Your task to perform on an android device: toggle data saver in the chrome app Image 0: 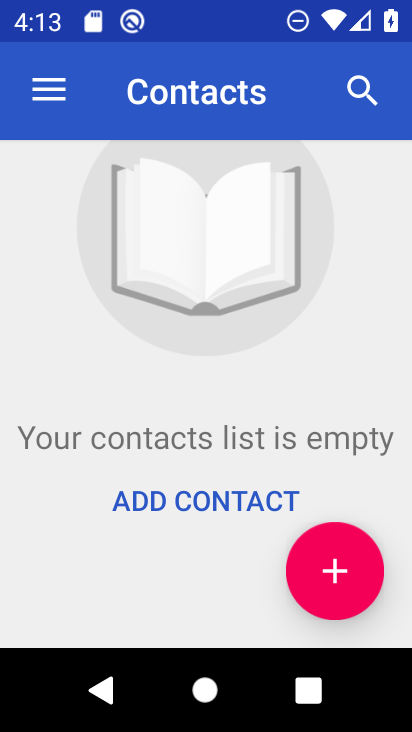
Step 0: press home button
Your task to perform on an android device: toggle data saver in the chrome app Image 1: 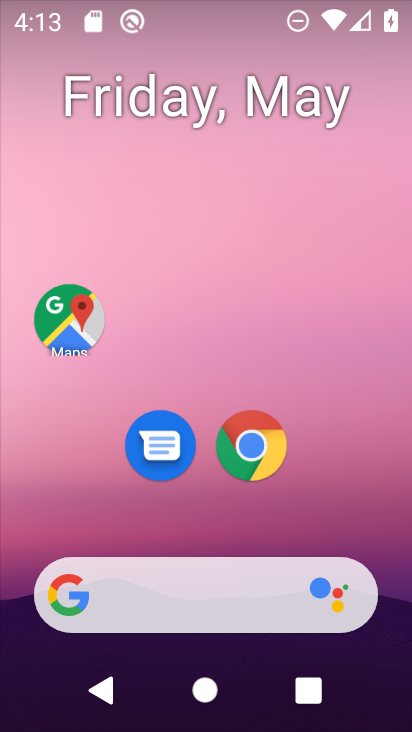
Step 1: click (255, 441)
Your task to perform on an android device: toggle data saver in the chrome app Image 2: 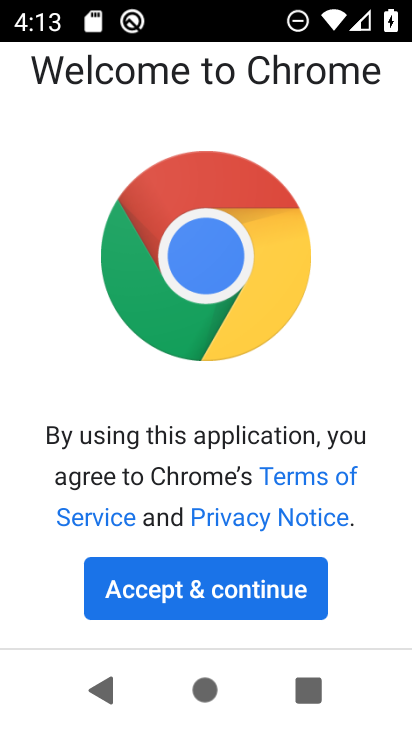
Step 2: click (218, 573)
Your task to perform on an android device: toggle data saver in the chrome app Image 3: 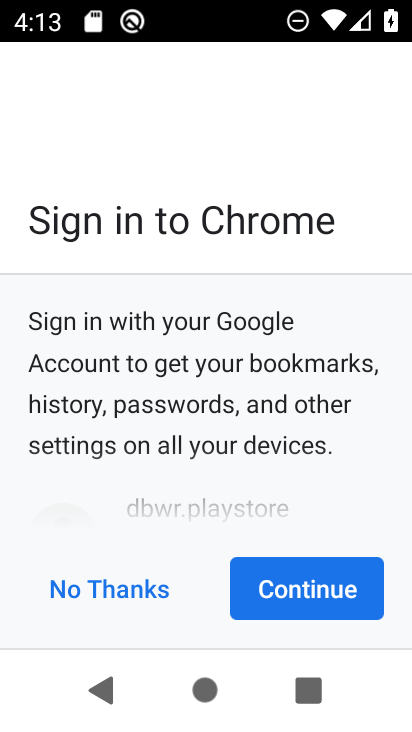
Step 3: click (306, 600)
Your task to perform on an android device: toggle data saver in the chrome app Image 4: 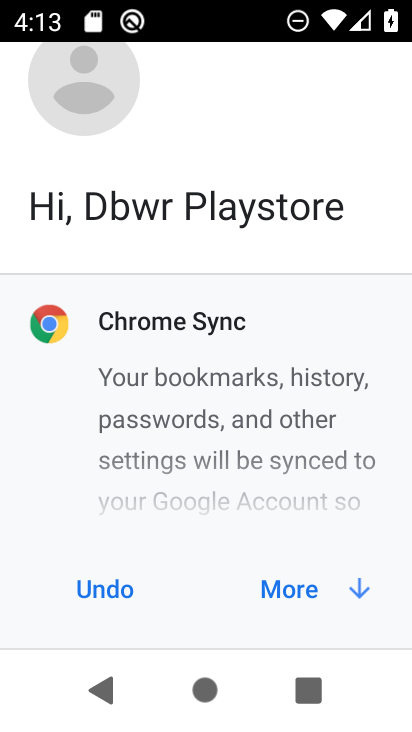
Step 4: click (306, 600)
Your task to perform on an android device: toggle data saver in the chrome app Image 5: 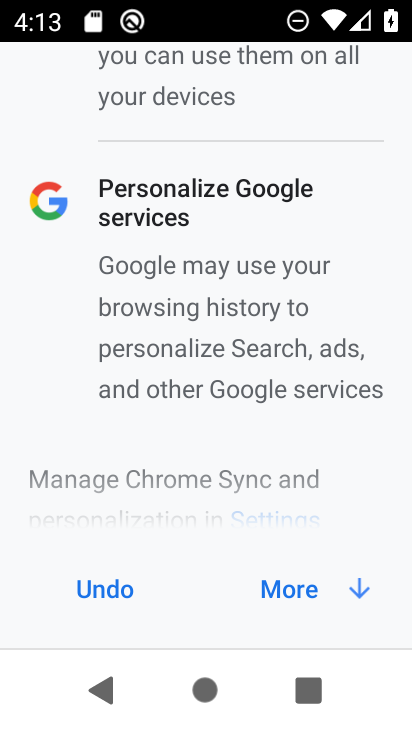
Step 5: click (306, 600)
Your task to perform on an android device: toggle data saver in the chrome app Image 6: 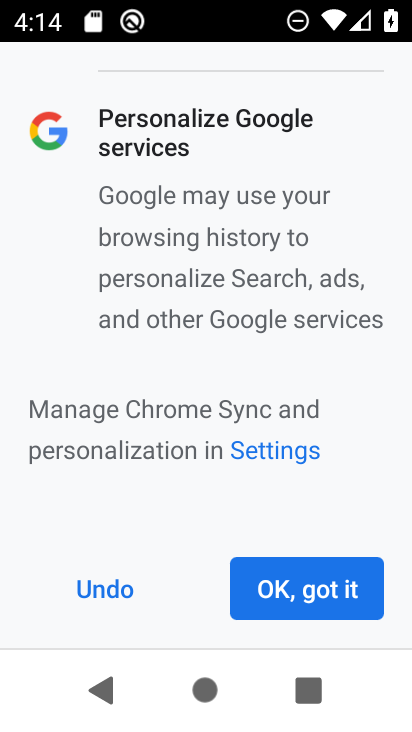
Step 6: click (307, 601)
Your task to perform on an android device: toggle data saver in the chrome app Image 7: 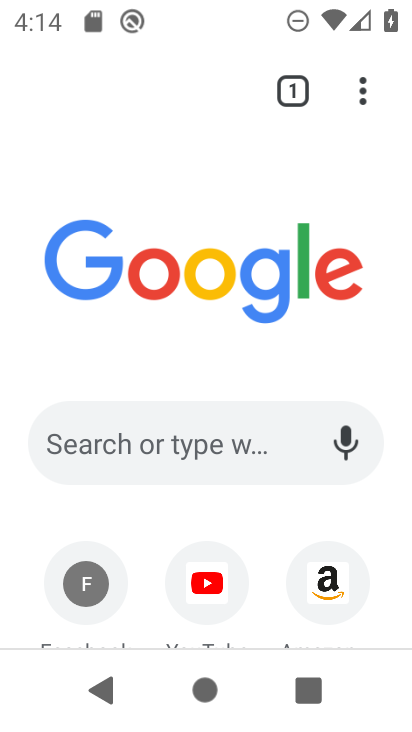
Step 7: click (368, 87)
Your task to perform on an android device: toggle data saver in the chrome app Image 8: 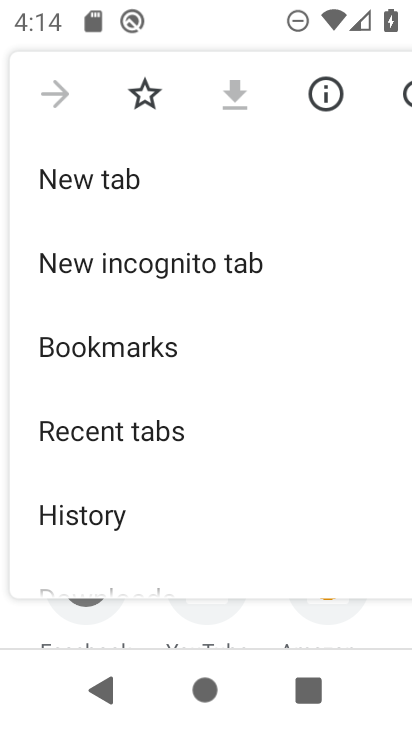
Step 8: drag from (165, 511) to (95, 11)
Your task to perform on an android device: toggle data saver in the chrome app Image 9: 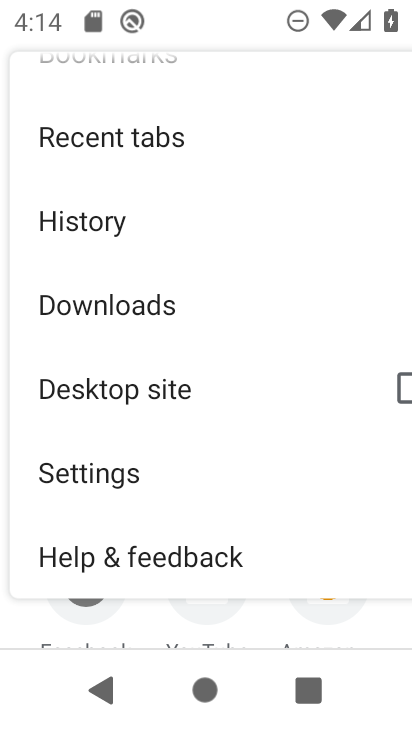
Step 9: click (90, 465)
Your task to perform on an android device: toggle data saver in the chrome app Image 10: 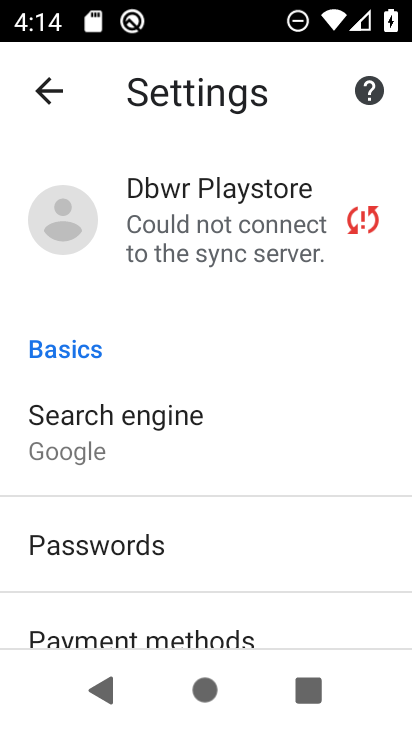
Step 10: drag from (219, 569) to (220, 79)
Your task to perform on an android device: toggle data saver in the chrome app Image 11: 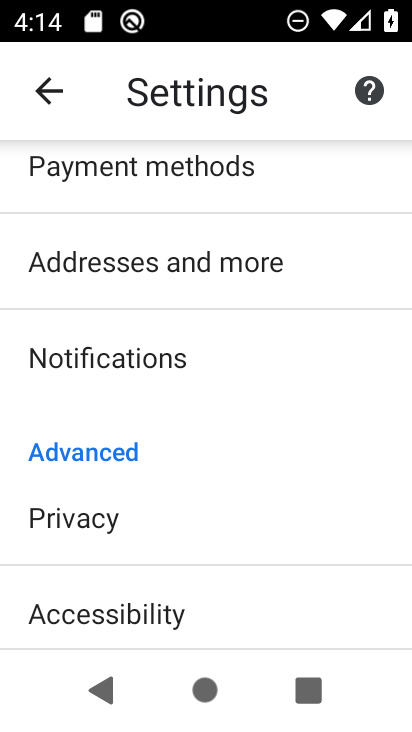
Step 11: drag from (217, 531) to (204, 105)
Your task to perform on an android device: toggle data saver in the chrome app Image 12: 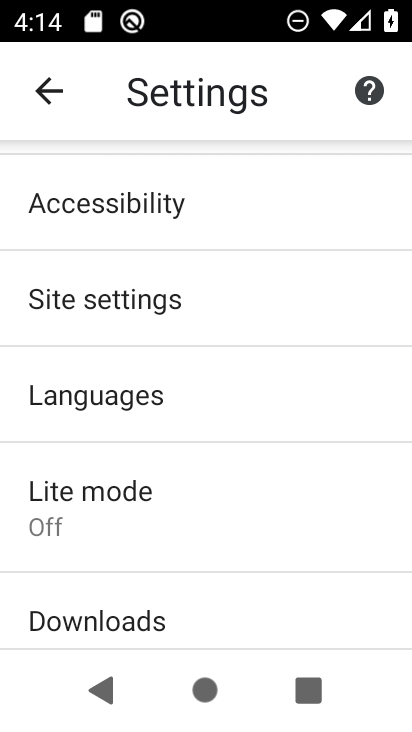
Step 12: click (138, 496)
Your task to perform on an android device: toggle data saver in the chrome app Image 13: 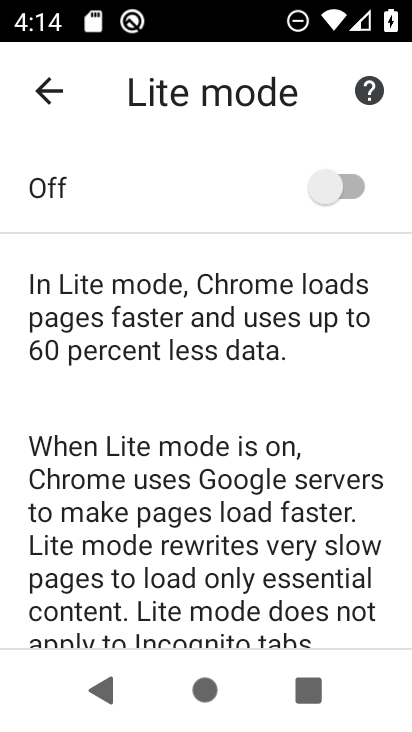
Step 13: drag from (262, 595) to (223, 29)
Your task to perform on an android device: toggle data saver in the chrome app Image 14: 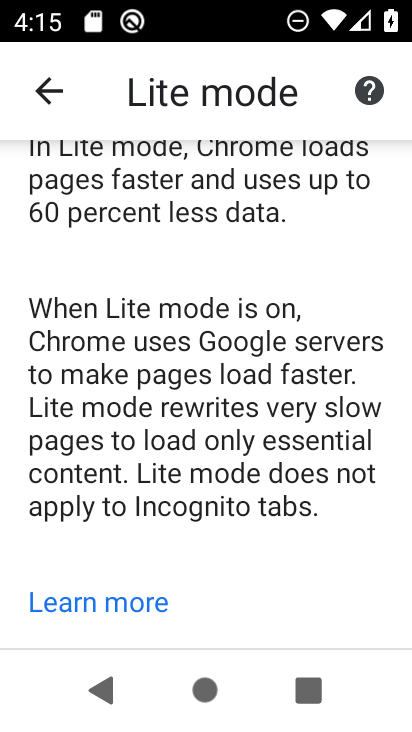
Step 14: drag from (238, 535) to (236, 93)
Your task to perform on an android device: toggle data saver in the chrome app Image 15: 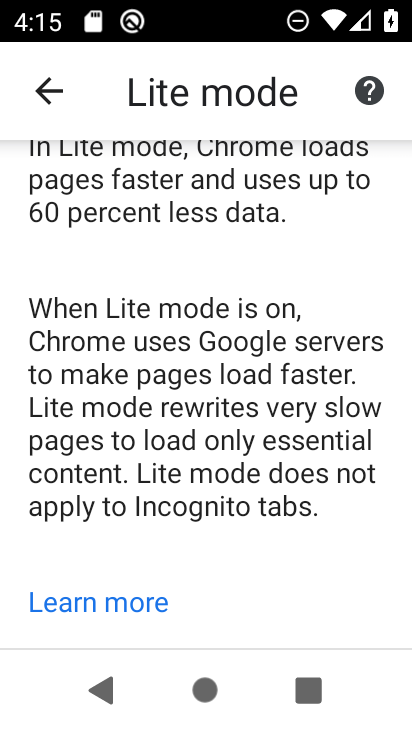
Step 15: drag from (265, 528) to (228, 24)
Your task to perform on an android device: toggle data saver in the chrome app Image 16: 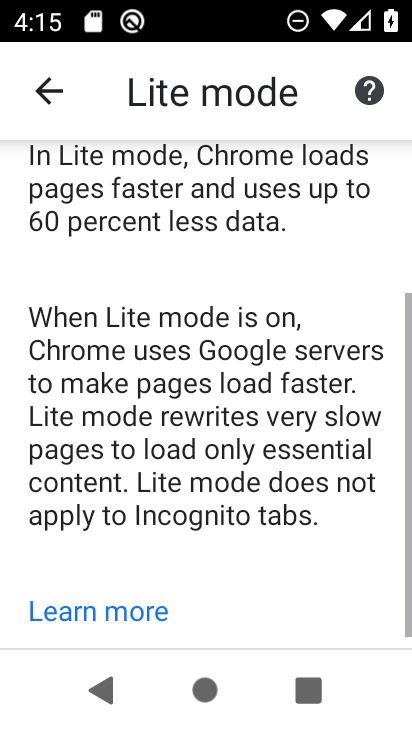
Step 16: drag from (288, 505) to (236, 62)
Your task to perform on an android device: toggle data saver in the chrome app Image 17: 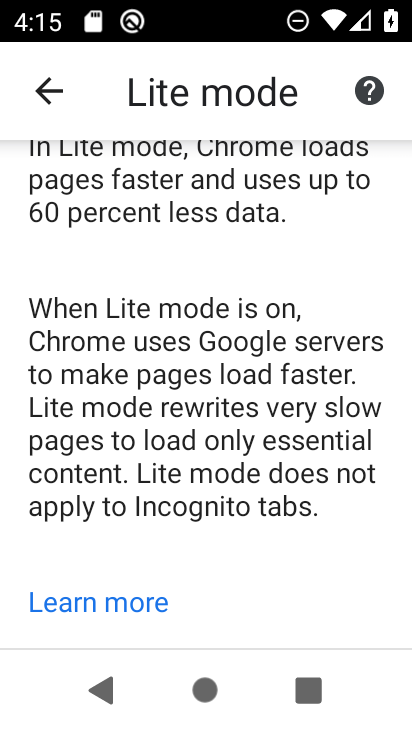
Step 17: drag from (210, 238) to (222, 731)
Your task to perform on an android device: toggle data saver in the chrome app Image 18: 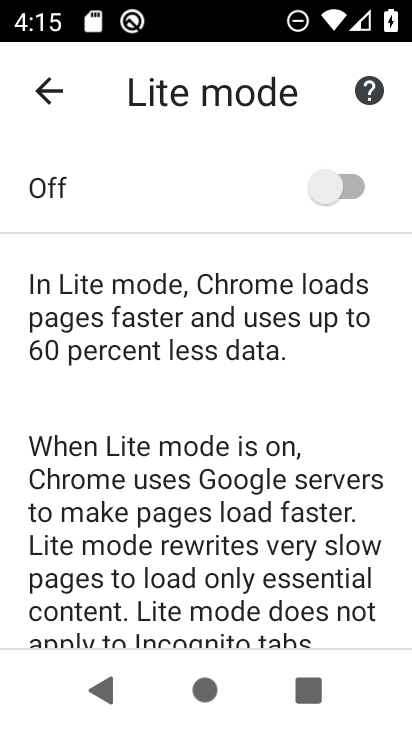
Step 18: click (360, 189)
Your task to perform on an android device: toggle data saver in the chrome app Image 19: 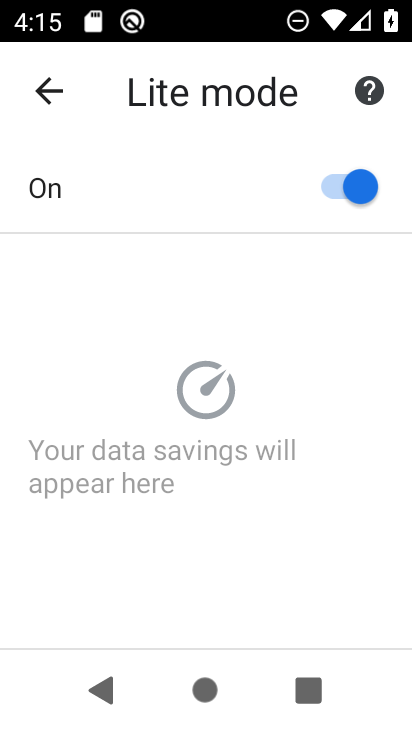
Step 19: task complete